Your task to perform on an android device: empty trash in google photos Image 0: 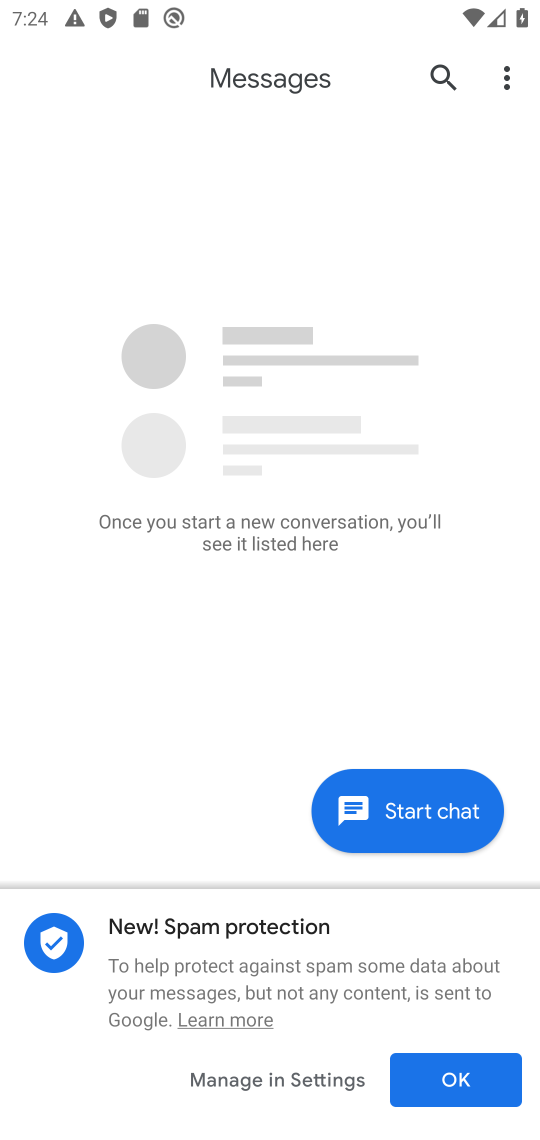
Step 0: press home button
Your task to perform on an android device: empty trash in google photos Image 1: 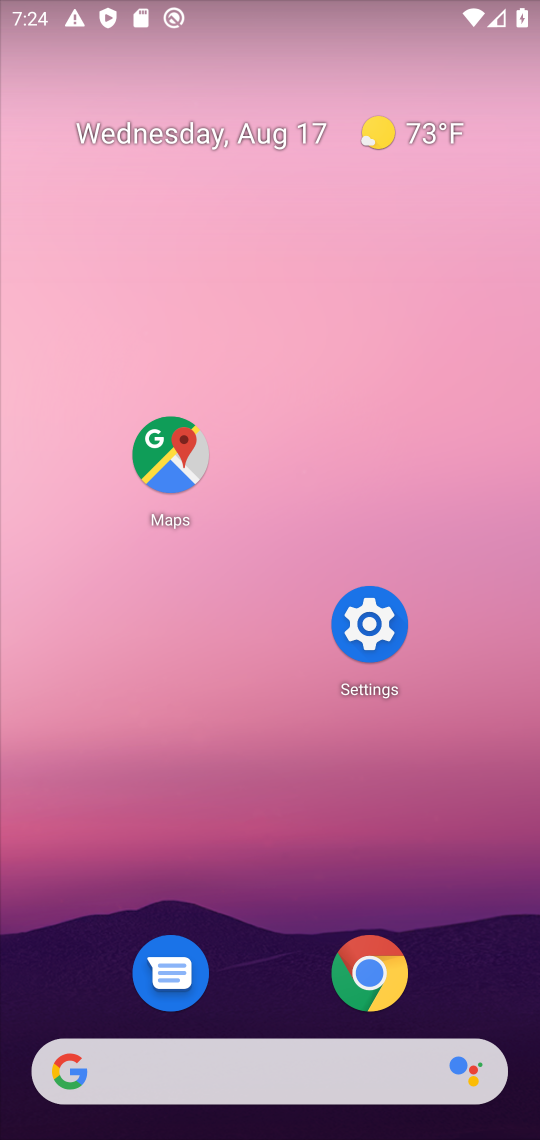
Step 1: drag from (292, 1081) to (386, 429)
Your task to perform on an android device: empty trash in google photos Image 2: 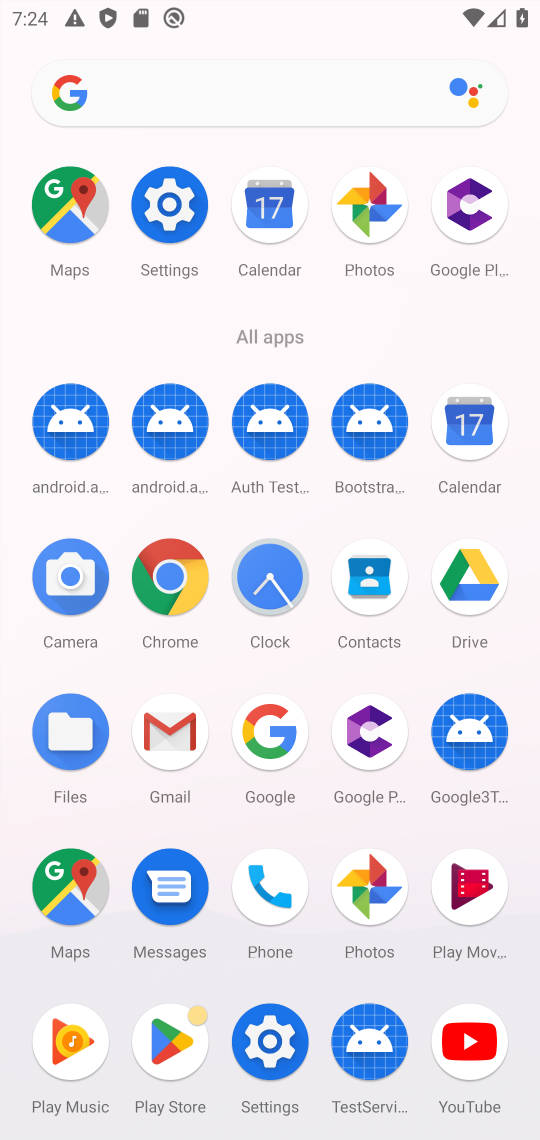
Step 2: click (375, 199)
Your task to perform on an android device: empty trash in google photos Image 3: 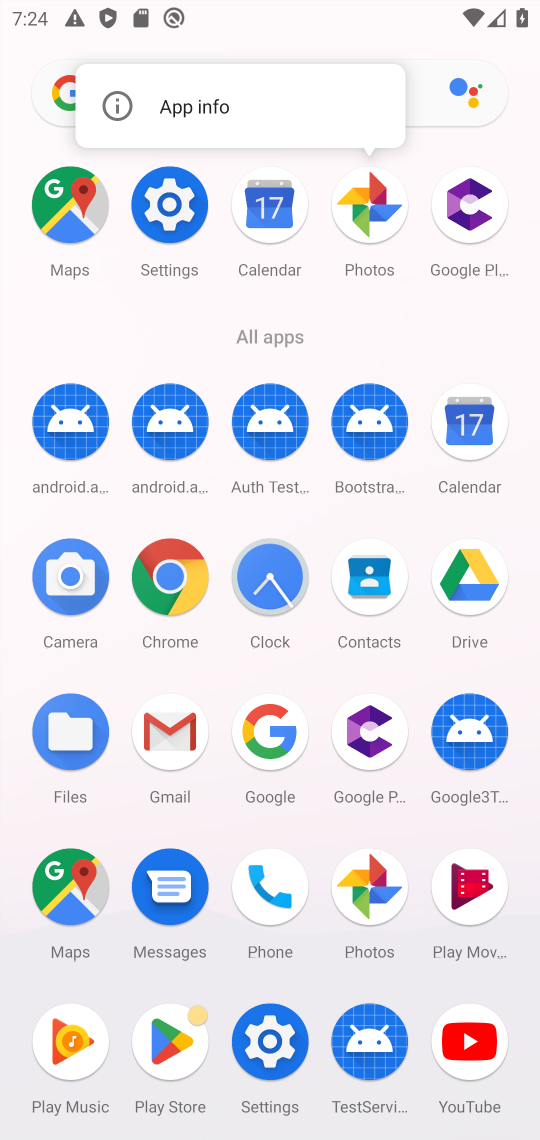
Step 3: click (379, 197)
Your task to perform on an android device: empty trash in google photos Image 4: 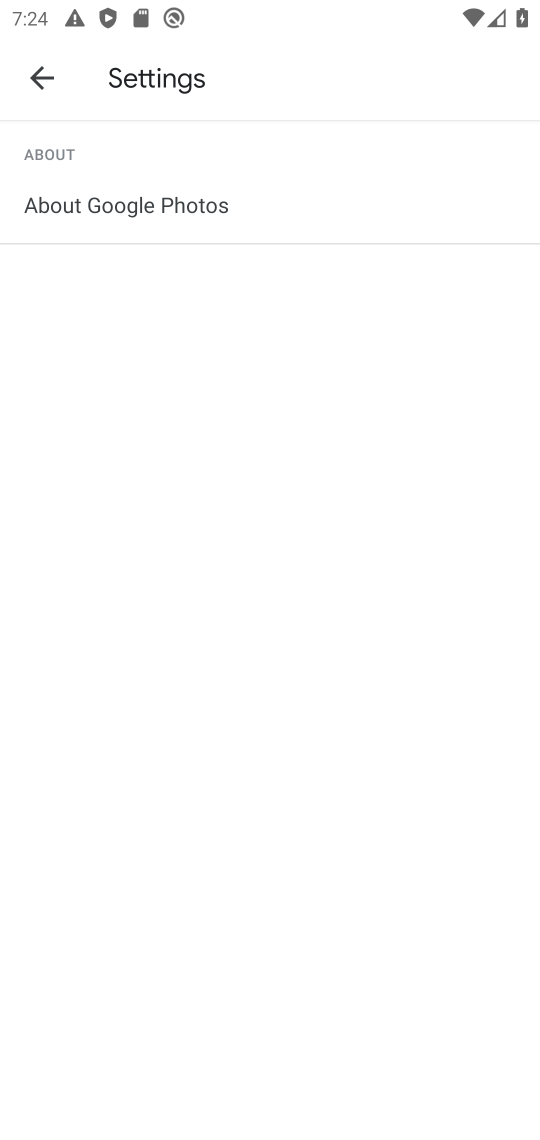
Step 4: press back button
Your task to perform on an android device: empty trash in google photos Image 5: 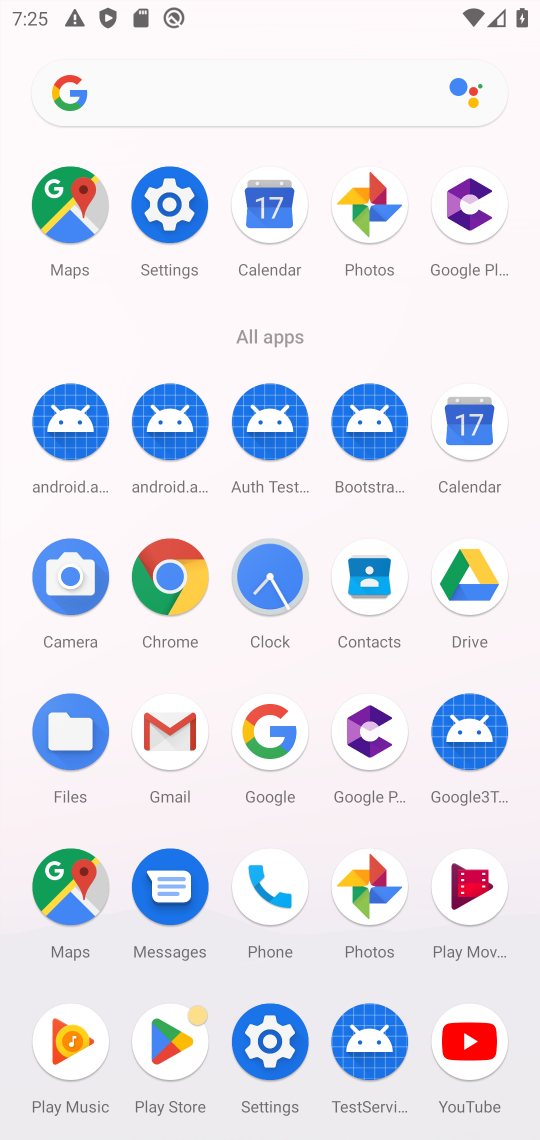
Step 5: click (361, 211)
Your task to perform on an android device: empty trash in google photos Image 6: 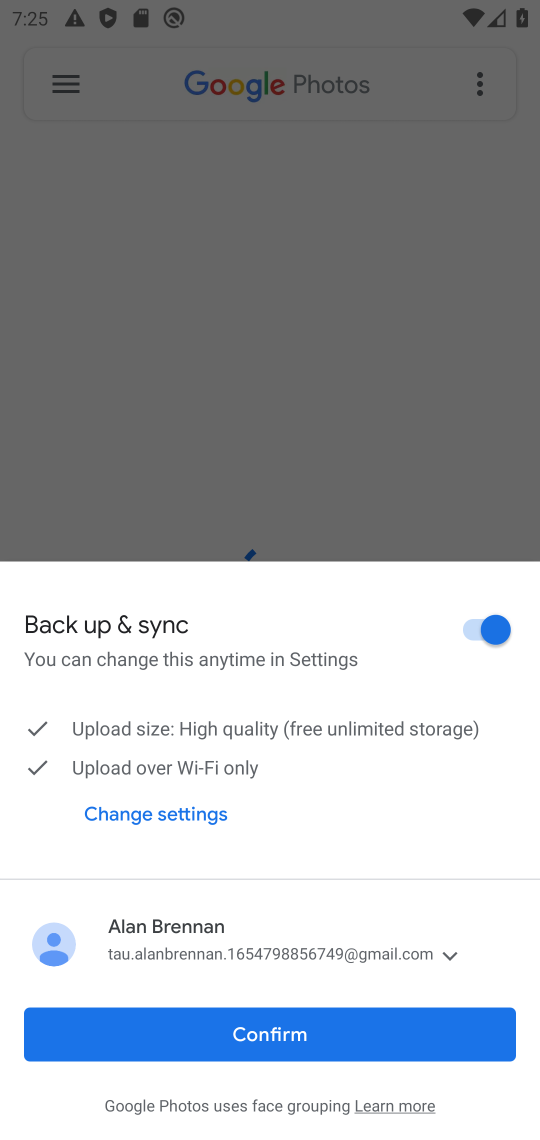
Step 6: click (266, 1032)
Your task to perform on an android device: empty trash in google photos Image 7: 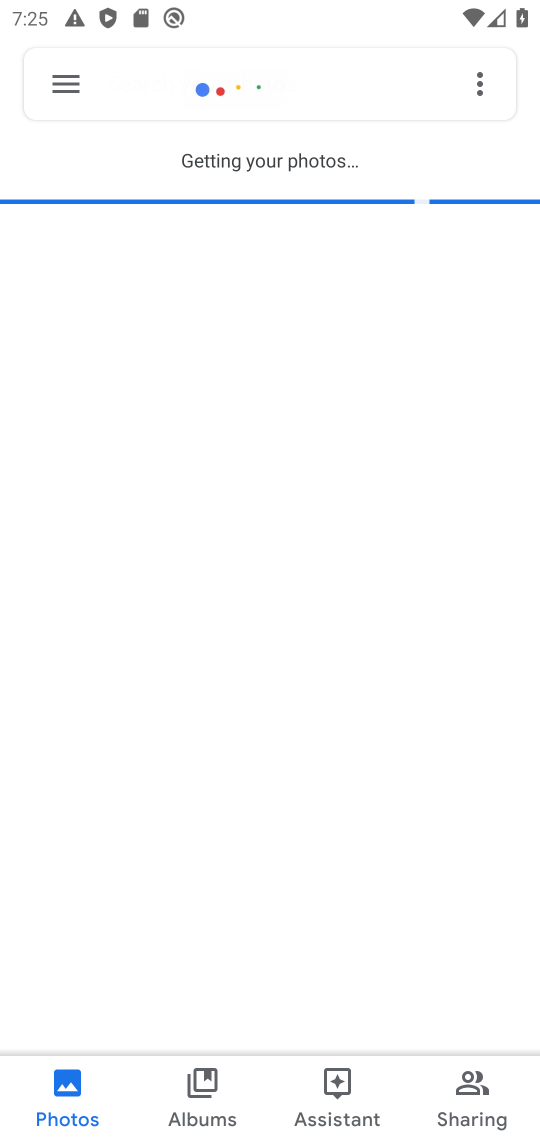
Step 7: click (66, 71)
Your task to perform on an android device: empty trash in google photos Image 8: 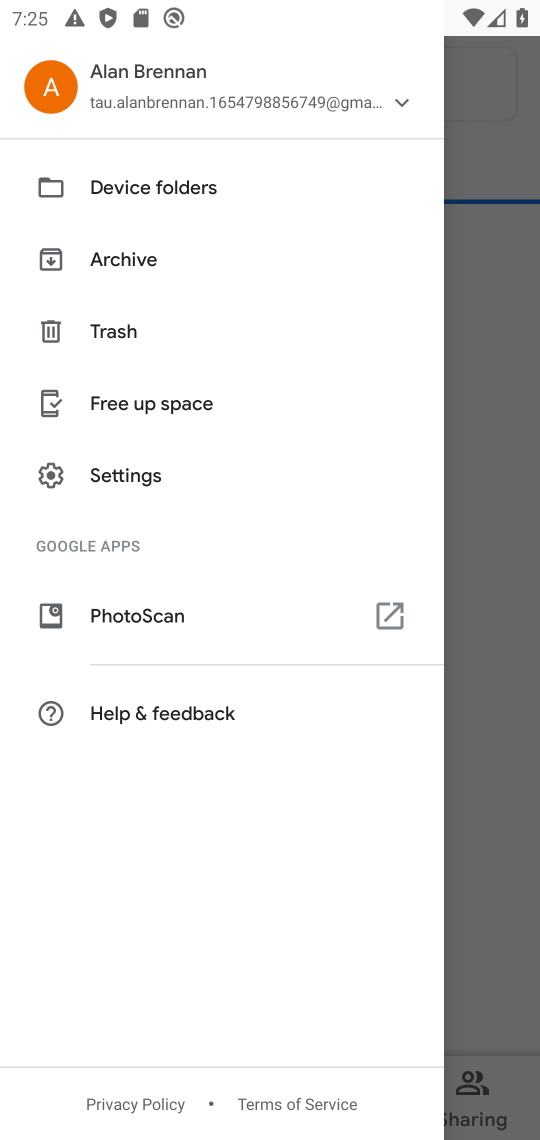
Step 8: click (121, 319)
Your task to perform on an android device: empty trash in google photos Image 9: 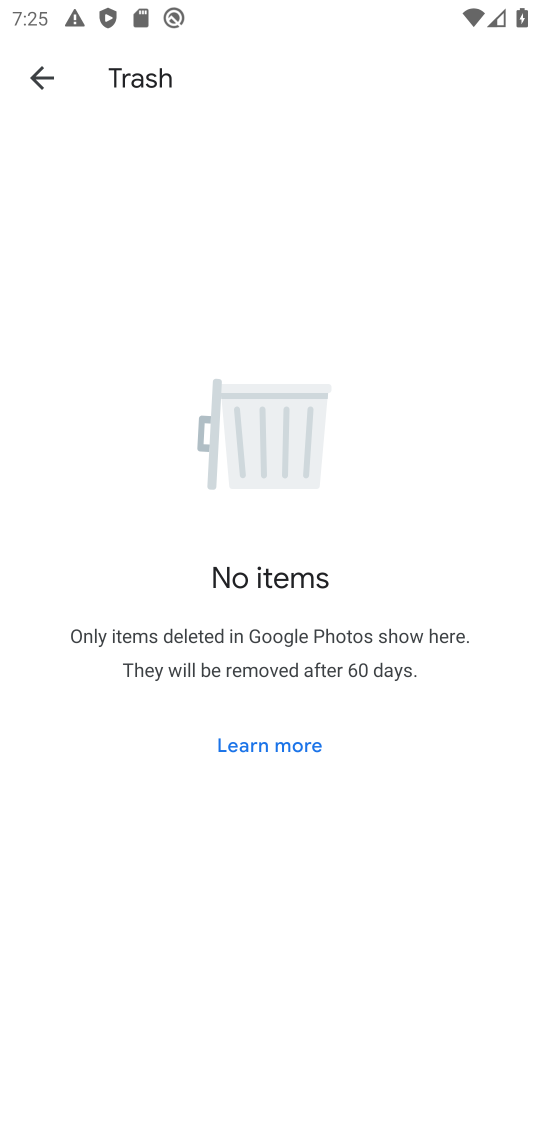
Step 9: task complete